Your task to perform on an android device: change text size in settings app Image 0: 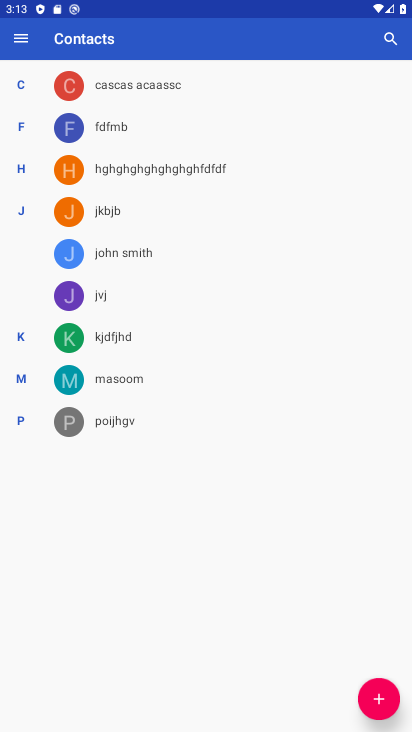
Step 0: press home button
Your task to perform on an android device: change text size in settings app Image 1: 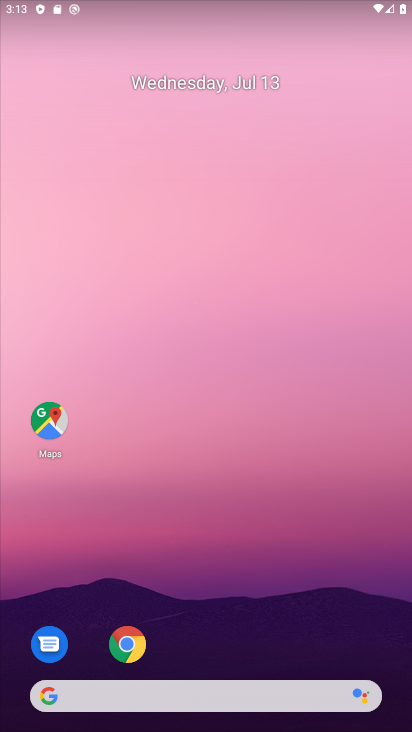
Step 1: drag from (214, 686) to (244, 162)
Your task to perform on an android device: change text size in settings app Image 2: 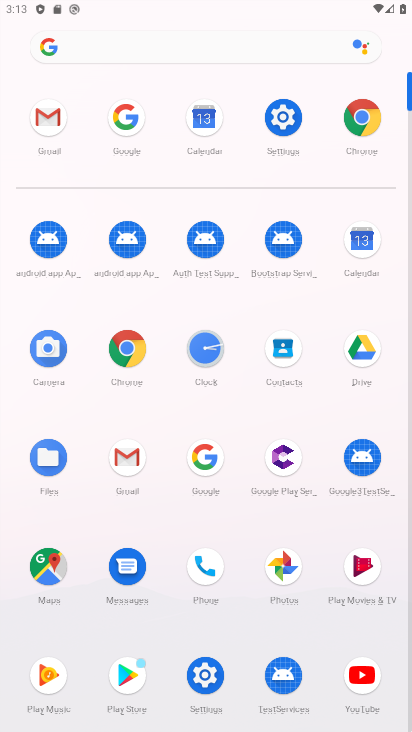
Step 2: click (284, 118)
Your task to perform on an android device: change text size in settings app Image 3: 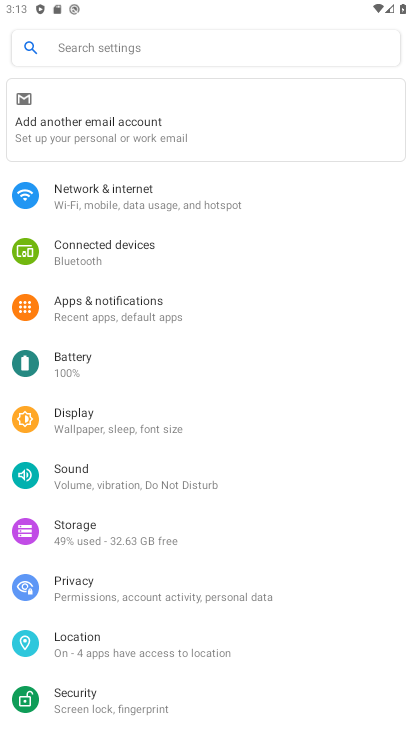
Step 3: drag from (124, 565) to (167, 368)
Your task to perform on an android device: change text size in settings app Image 4: 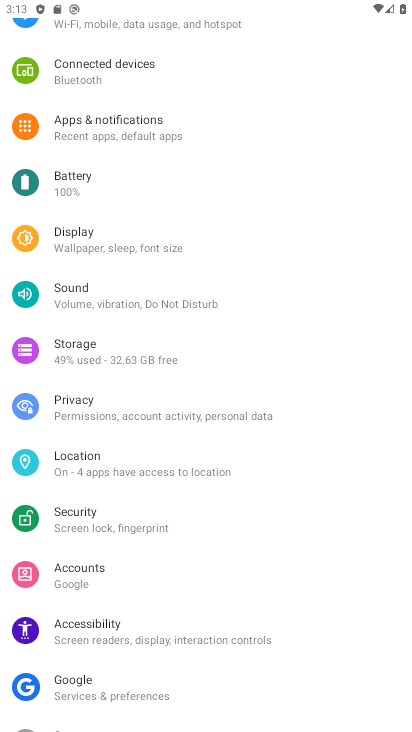
Step 4: click (91, 620)
Your task to perform on an android device: change text size in settings app Image 5: 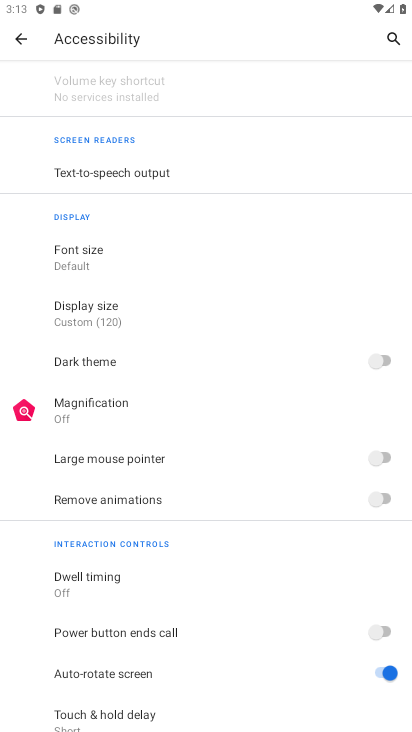
Step 5: click (90, 250)
Your task to perform on an android device: change text size in settings app Image 6: 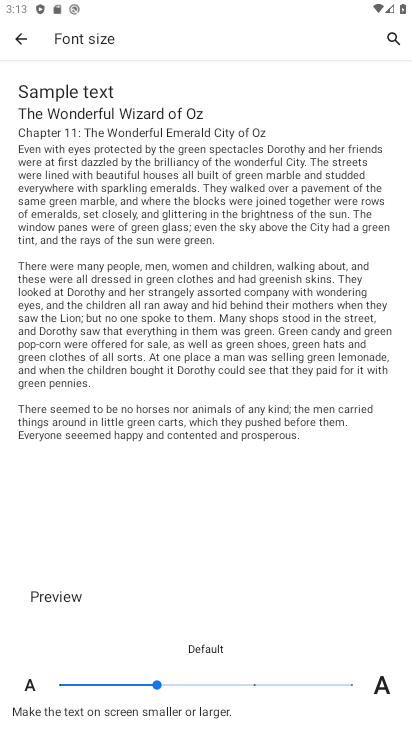
Step 6: click (250, 680)
Your task to perform on an android device: change text size in settings app Image 7: 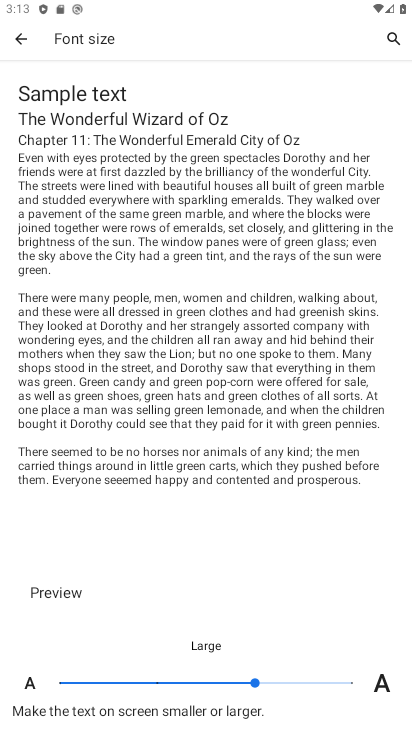
Step 7: task complete